Your task to perform on an android device: toggle notifications settings in the gmail app Image 0: 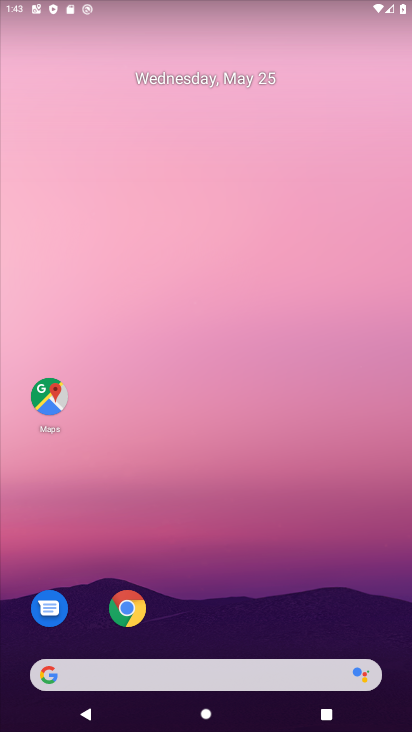
Step 0: drag from (222, 620) to (185, 296)
Your task to perform on an android device: toggle notifications settings in the gmail app Image 1: 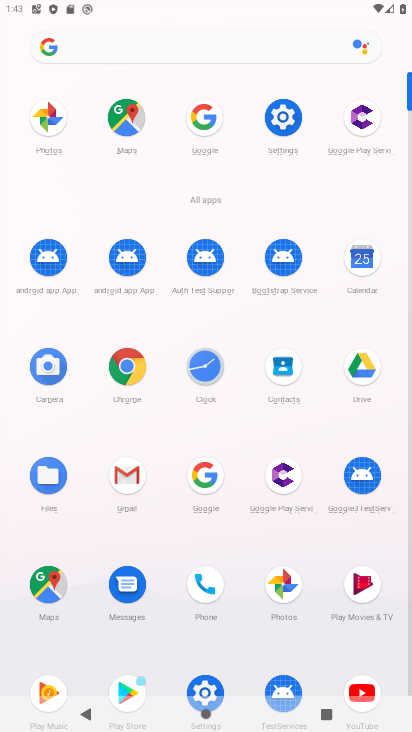
Step 1: click (120, 480)
Your task to perform on an android device: toggle notifications settings in the gmail app Image 2: 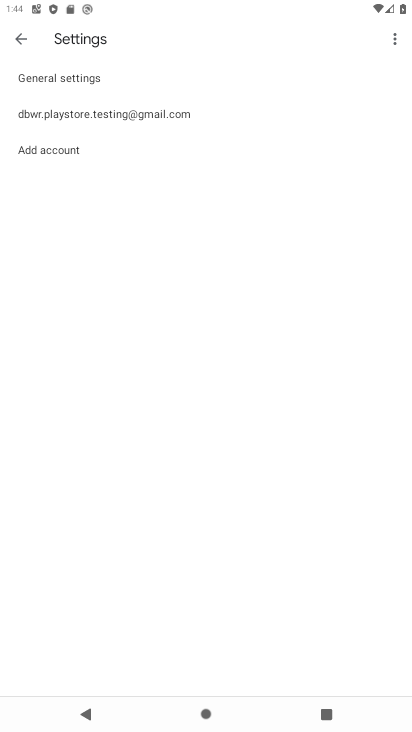
Step 2: click (37, 83)
Your task to perform on an android device: toggle notifications settings in the gmail app Image 3: 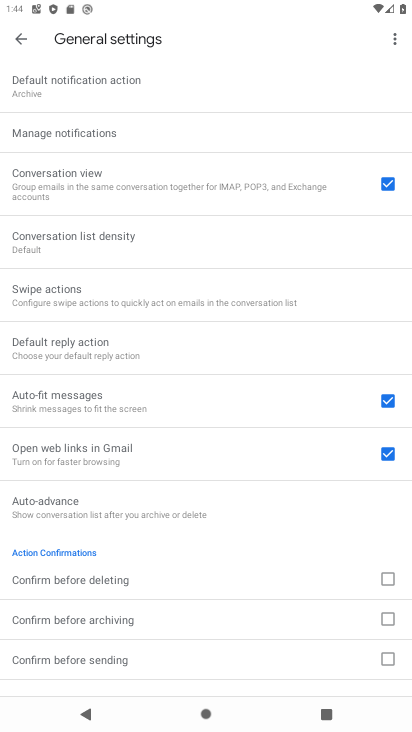
Step 3: click (49, 133)
Your task to perform on an android device: toggle notifications settings in the gmail app Image 4: 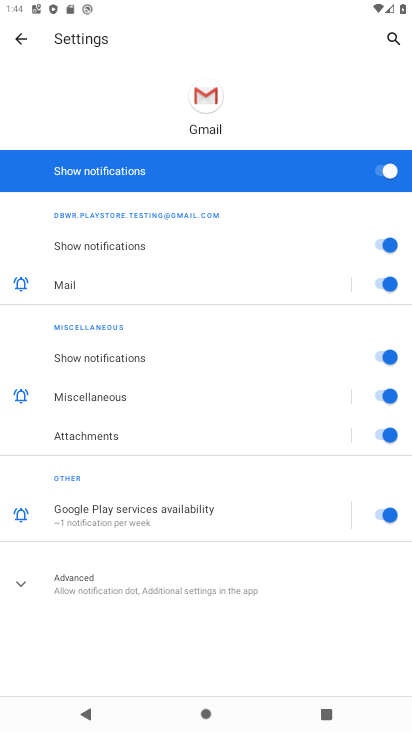
Step 4: click (384, 177)
Your task to perform on an android device: toggle notifications settings in the gmail app Image 5: 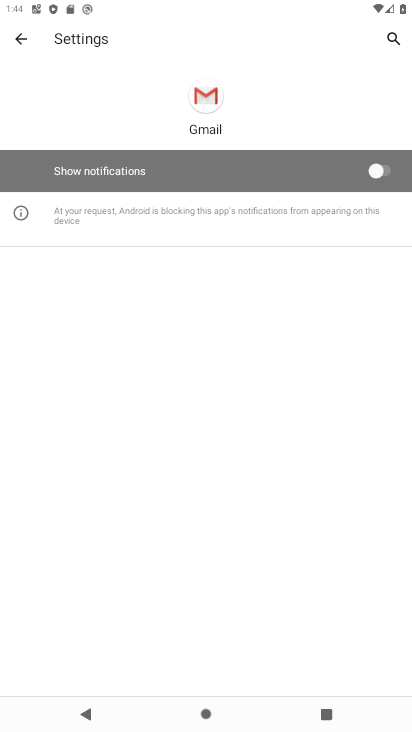
Step 5: task complete